Your task to perform on an android device: toggle location history Image 0: 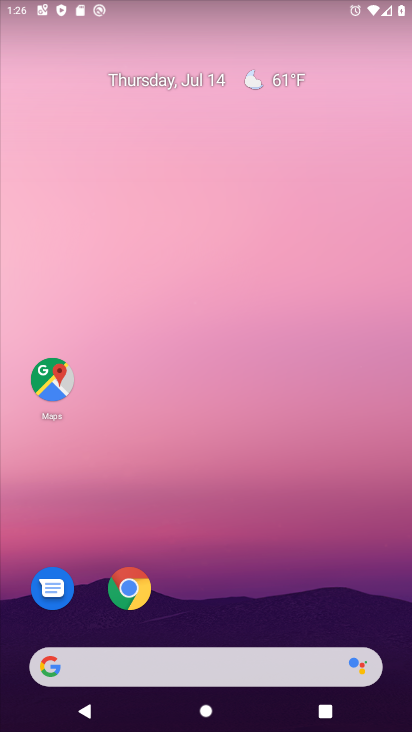
Step 0: drag from (319, 590) to (319, 312)
Your task to perform on an android device: toggle location history Image 1: 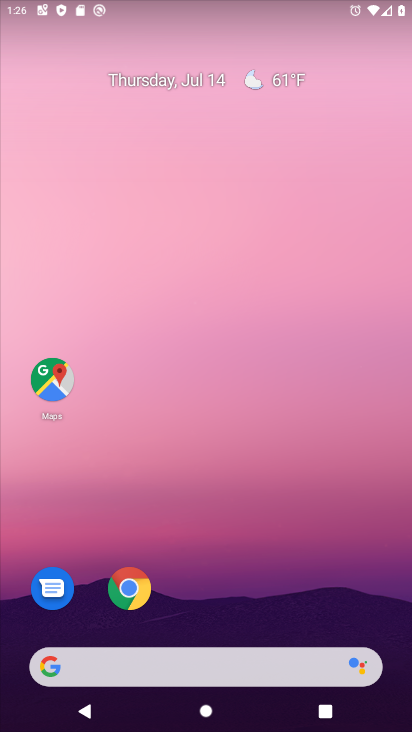
Step 1: drag from (221, 605) to (219, 274)
Your task to perform on an android device: toggle location history Image 2: 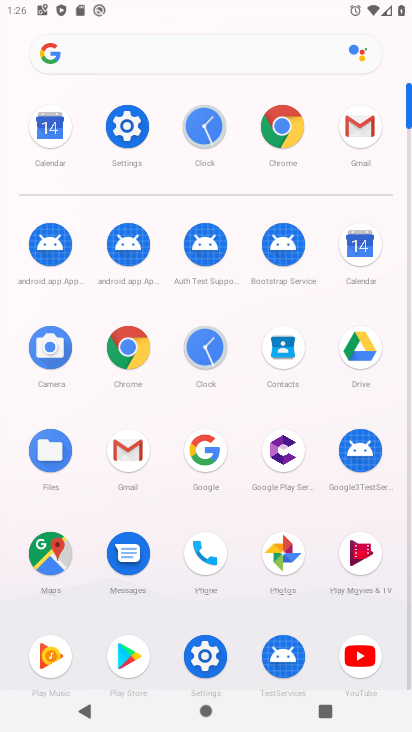
Step 2: click (130, 123)
Your task to perform on an android device: toggle location history Image 3: 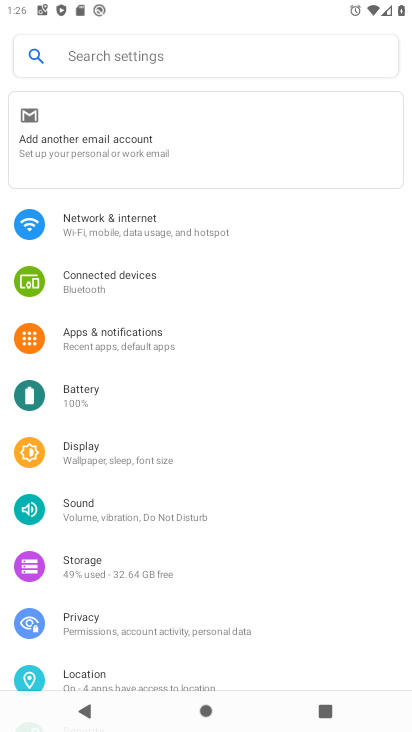
Step 3: drag from (119, 535) to (164, 304)
Your task to perform on an android device: toggle location history Image 4: 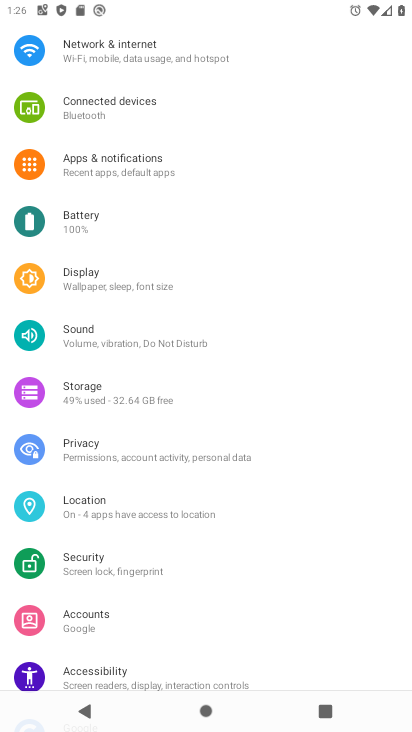
Step 4: click (109, 516)
Your task to perform on an android device: toggle location history Image 5: 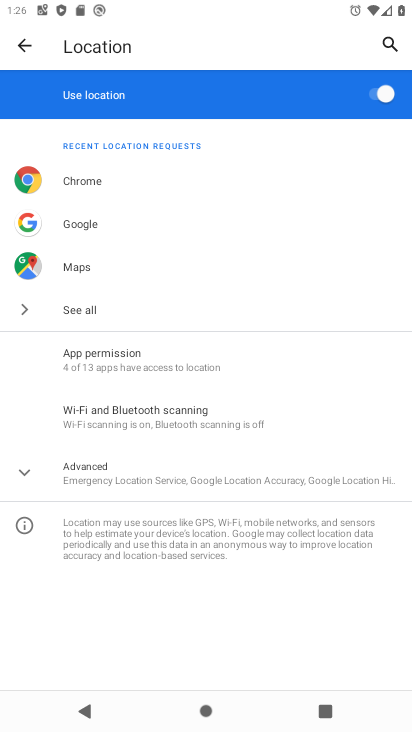
Step 5: click (145, 471)
Your task to perform on an android device: toggle location history Image 6: 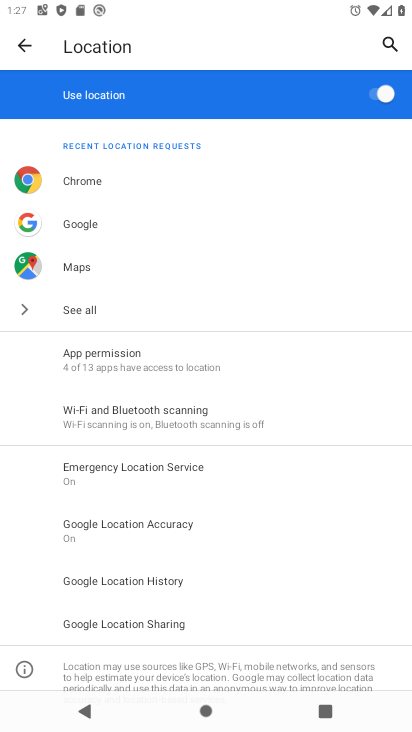
Step 6: task complete